Your task to perform on an android device: View the shopping cart on target. Image 0: 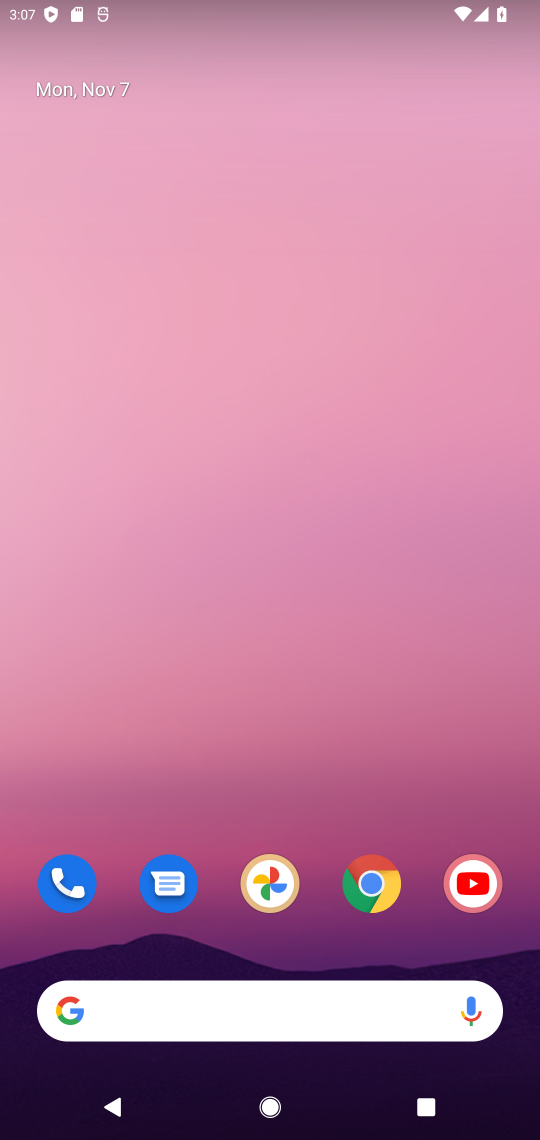
Step 0: click (358, 881)
Your task to perform on an android device: View the shopping cart on target. Image 1: 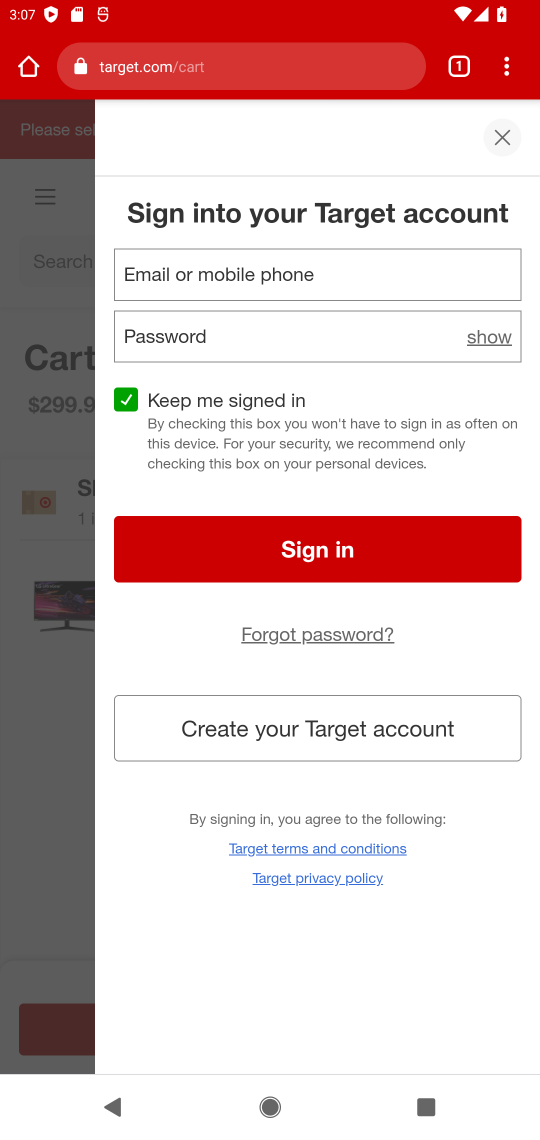
Step 1: click (501, 139)
Your task to perform on an android device: View the shopping cart on target. Image 2: 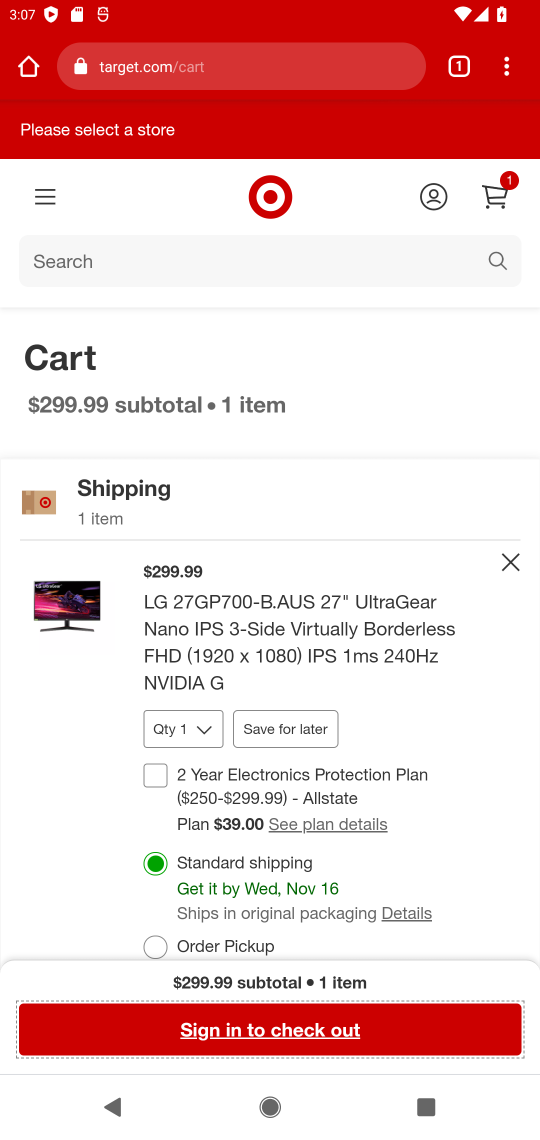
Step 2: click (495, 173)
Your task to perform on an android device: View the shopping cart on target. Image 3: 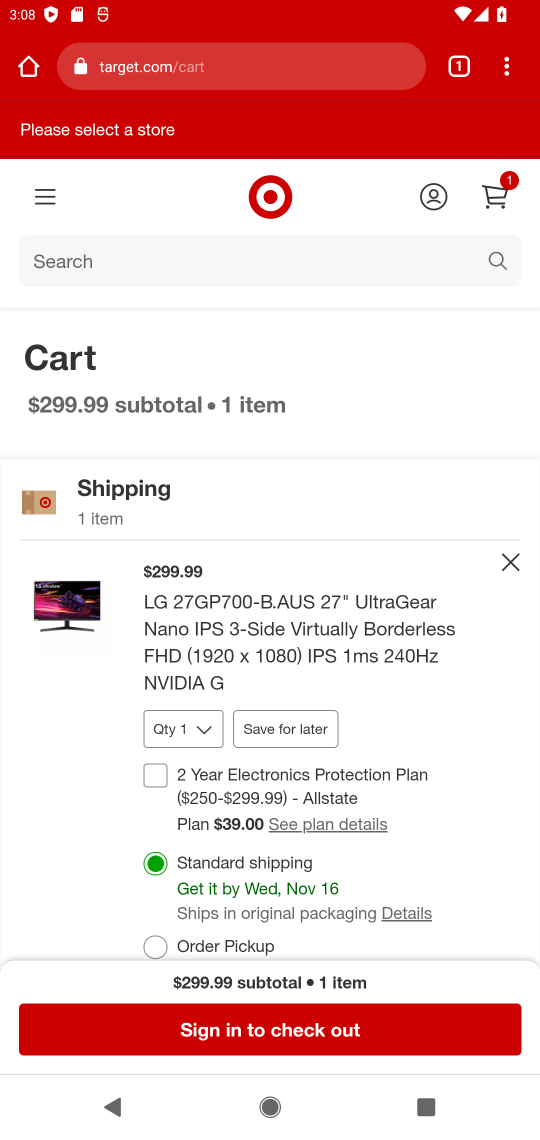
Step 3: task complete